Your task to perform on an android device: check data usage Image 0: 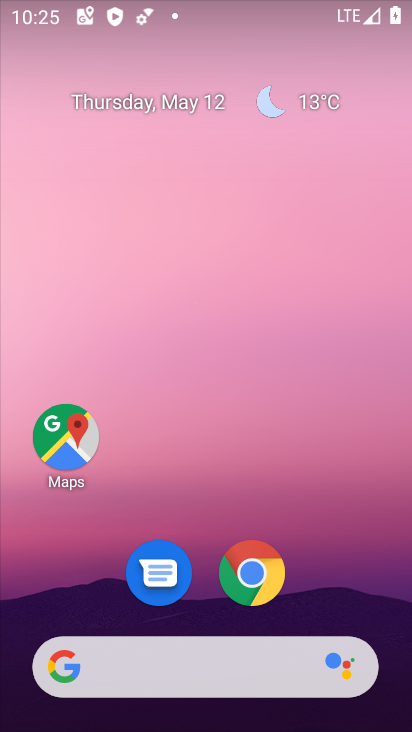
Step 0: drag from (196, 634) to (411, 104)
Your task to perform on an android device: check data usage Image 1: 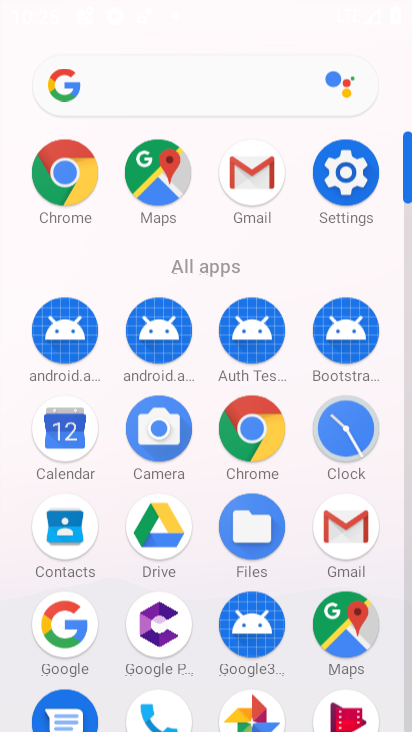
Step 1: click (342, 163)
Your task to perform on an android device: check data usage Image 2: 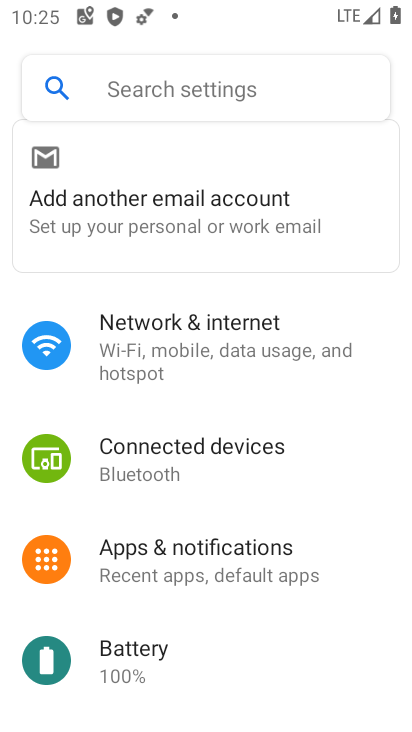
Step 2: click (211, 340)
Your task to perform on an android device: check data usage Image 3: 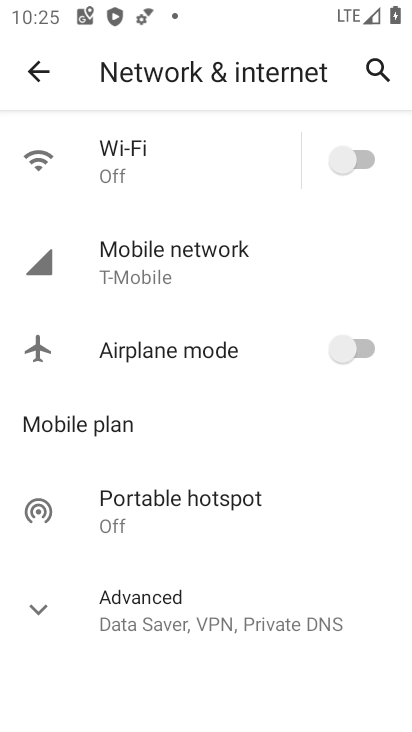
Step 3: click (140, 256)
Your task to perform on an android device: check data usage Image 4: 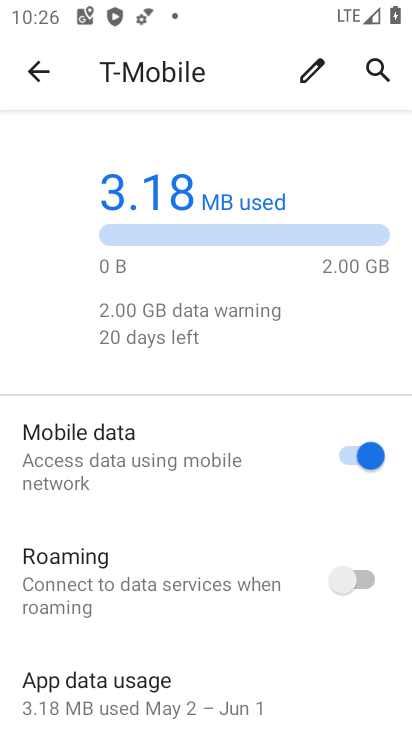
Step 4: task complete